Your task to perform on an android device: change timer sound Image 0: 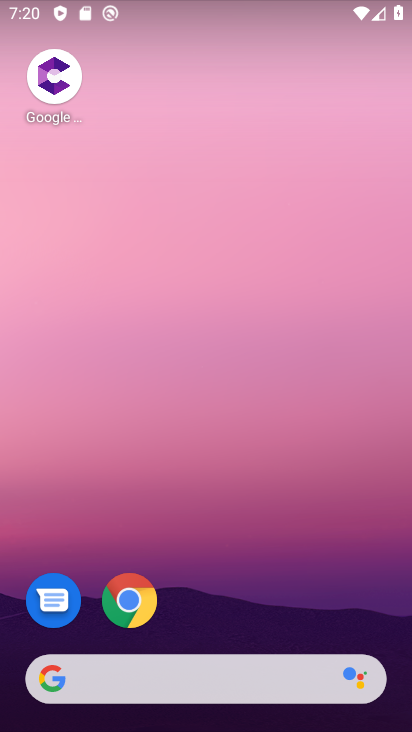
Step 0: drag from (176, 618) to (229, 19)
Your task to perform on an android device: change timer sound Image 1: 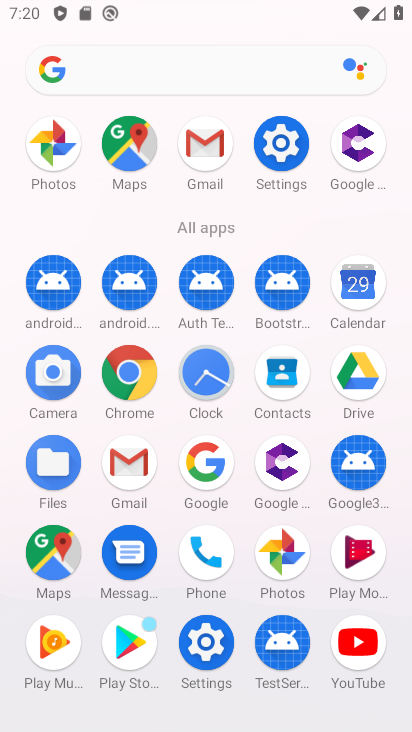
Step 1: click (193, 372)
Your task to perform on an android device: change timer sound Image 2: 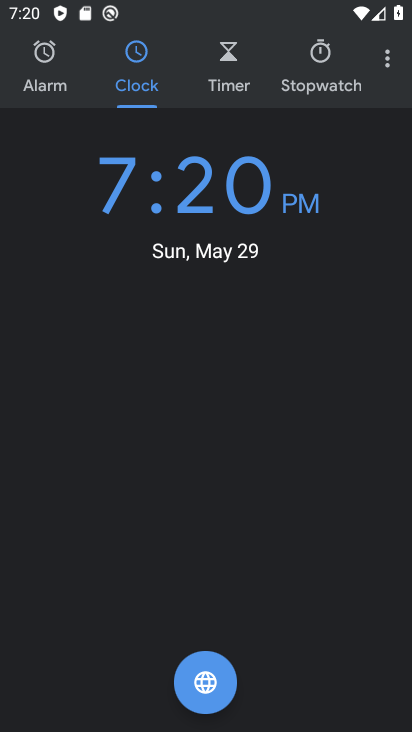
Step 2: click (392, 60)
Your task to perform on an android device: change timer sound Image 3: 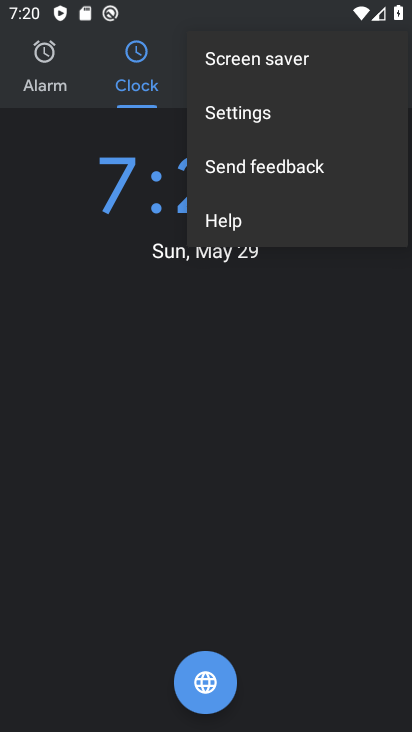
Step 3: click (245, 116)
Your task to perform on an android device: change timer sound Image 4: 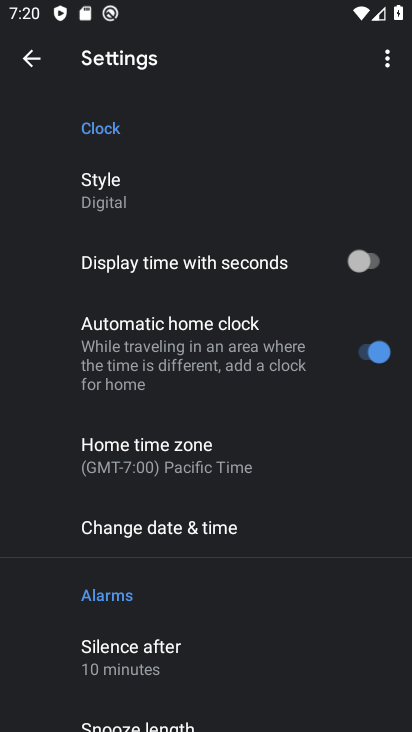
Step 4: drag from (144, 542) to (166, 354)
Your task to perform on an android device: change timer sound Image 5: 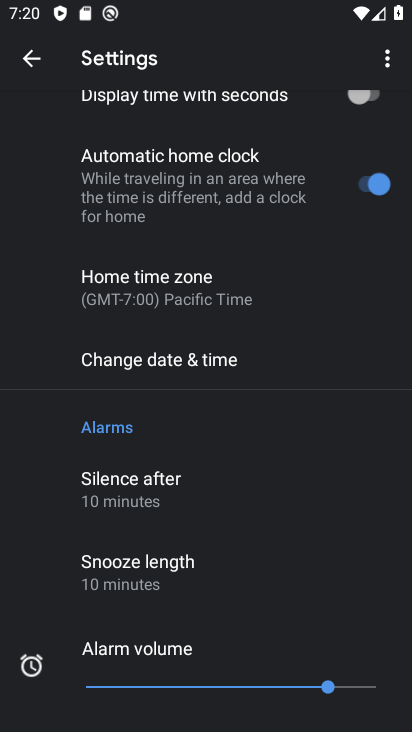
Step 5: drag from (181, 572) to (196, 395)
Your task to perform on an android device: change timer sound Image 6: 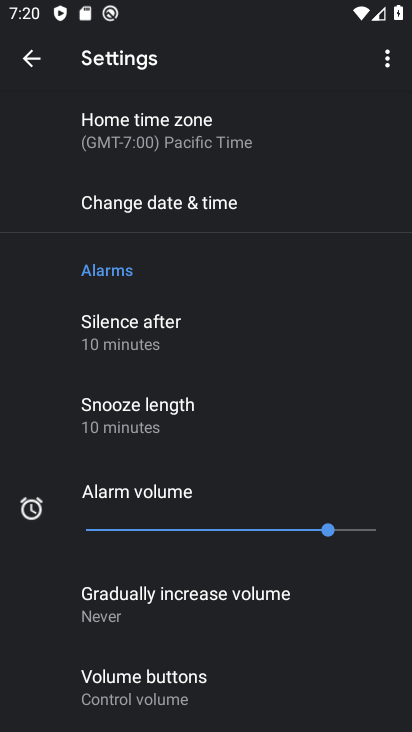
Step 6: drag from (216, 582) to (240, 189)
Your task to perform on an android device: change timer sound Image 7: 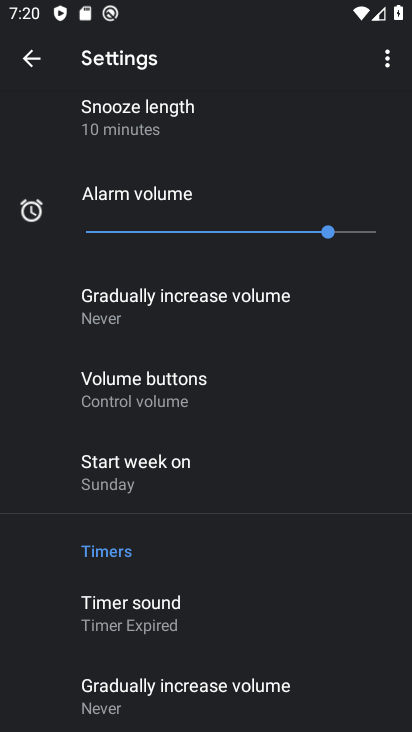
Step 7: click (159, 611)
Your task to perform on an android device: change timer sound Image 8: 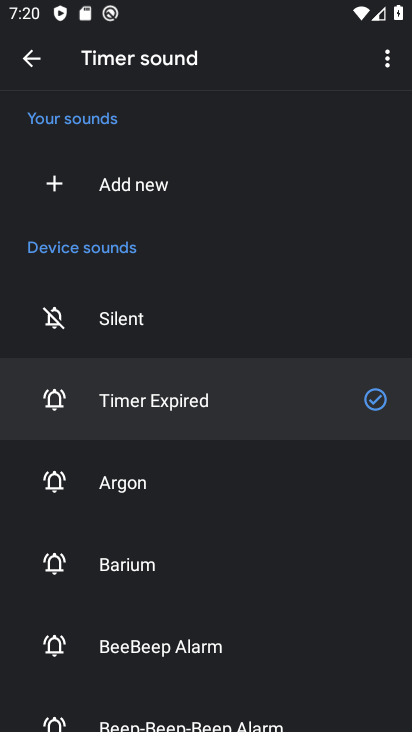
Step 8: click (140, 647)
Your task to perform on an android device: change timer sound Image 9: 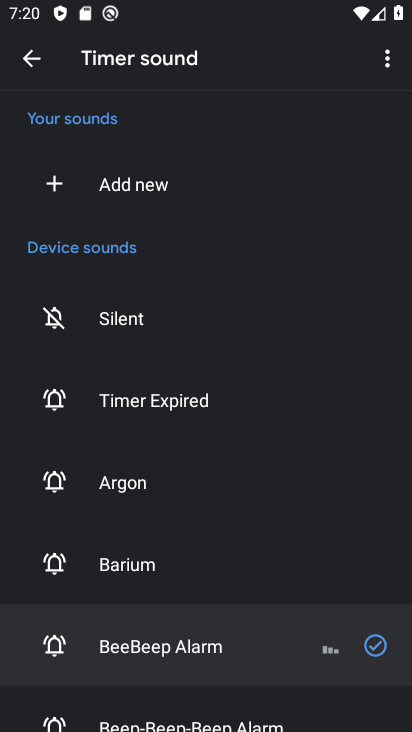
Step 9: task complete